Your task to perform on an android device: Search for a new grill on Home Depot Image 0: 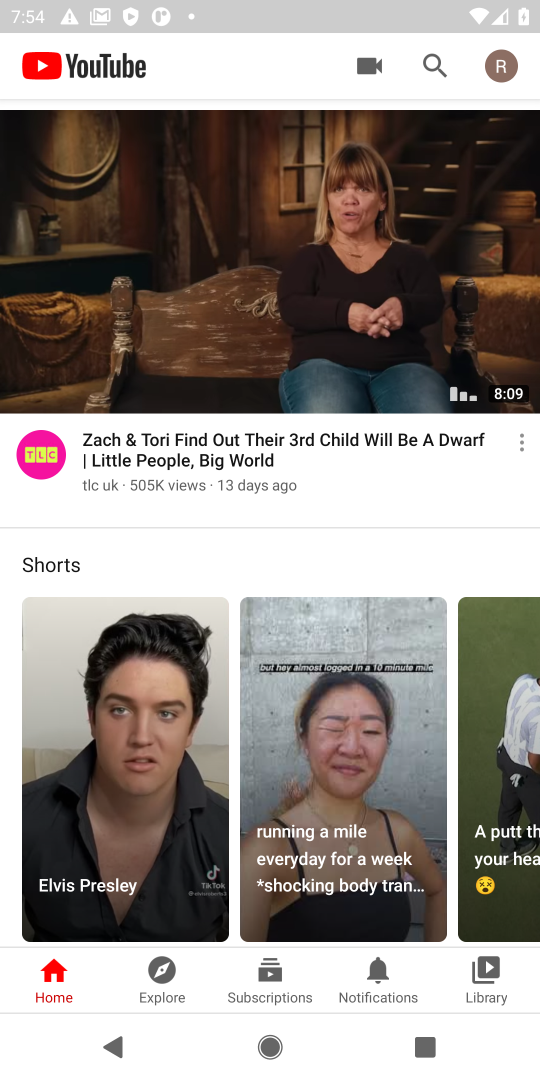
Step 0: press home button
Your task to perform on an android device: Search for a new grill on Home Depot Image 1: 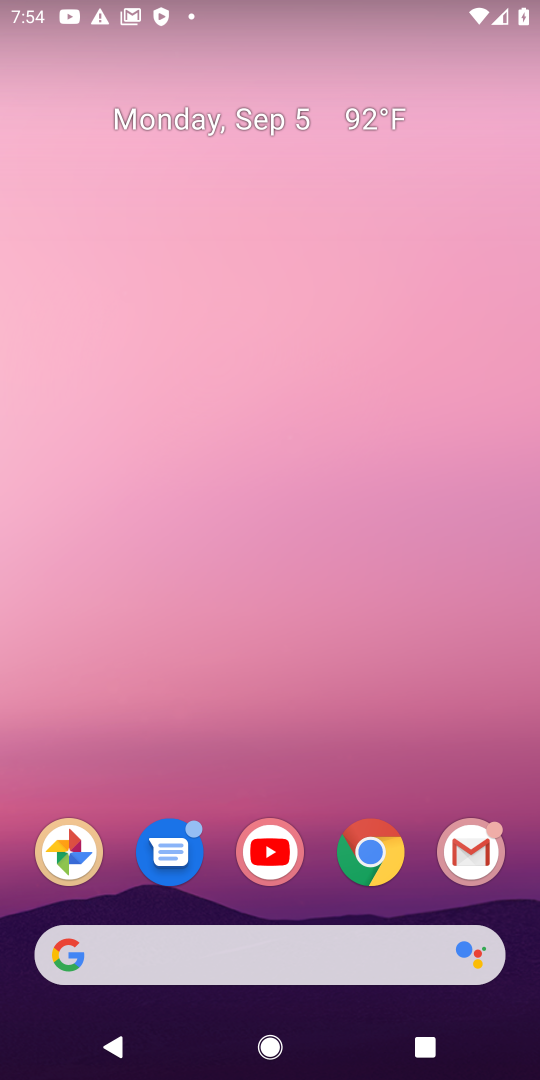
Step 1: click (386, 867)
Your task to perform on an android device: Search for a new grill on Home Depot Image 2: 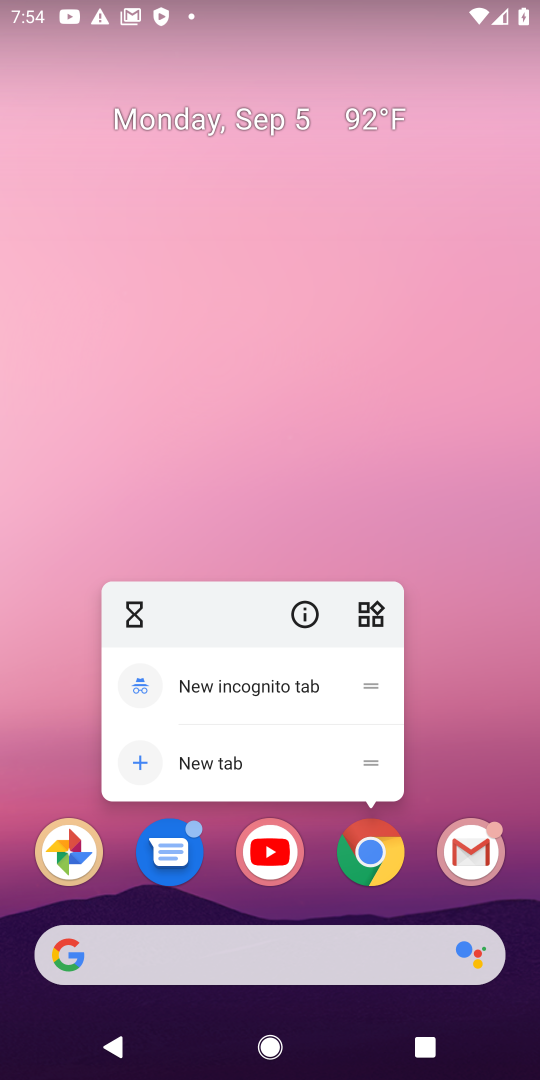
Step 2: click (362, 862)
Your task to perform on an android device: Search for a new grill on Home Depot Image 3: 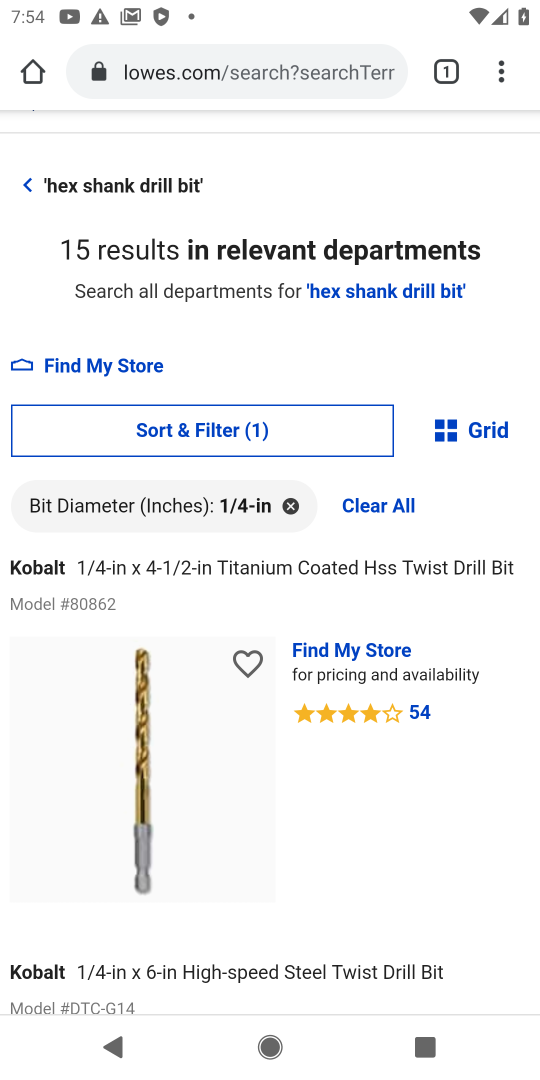
Step 3: click (227, 75)
Your task to perform on an android device: Search for a new grill on Home Depot Image 4: 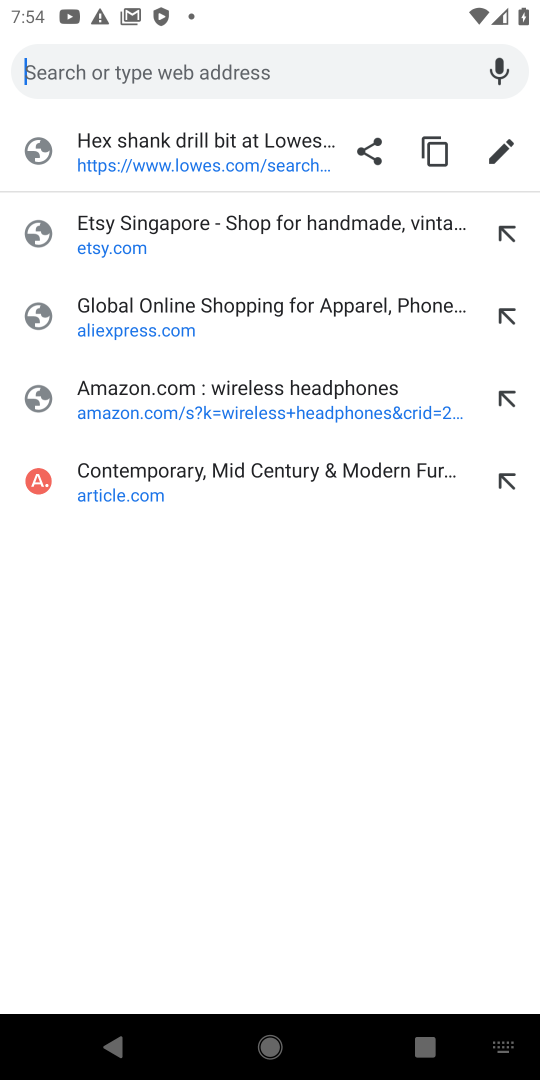
Step 4: type "home depot"
Your task to perform on an android device: Search for a new grill on Home Depot Image 5: 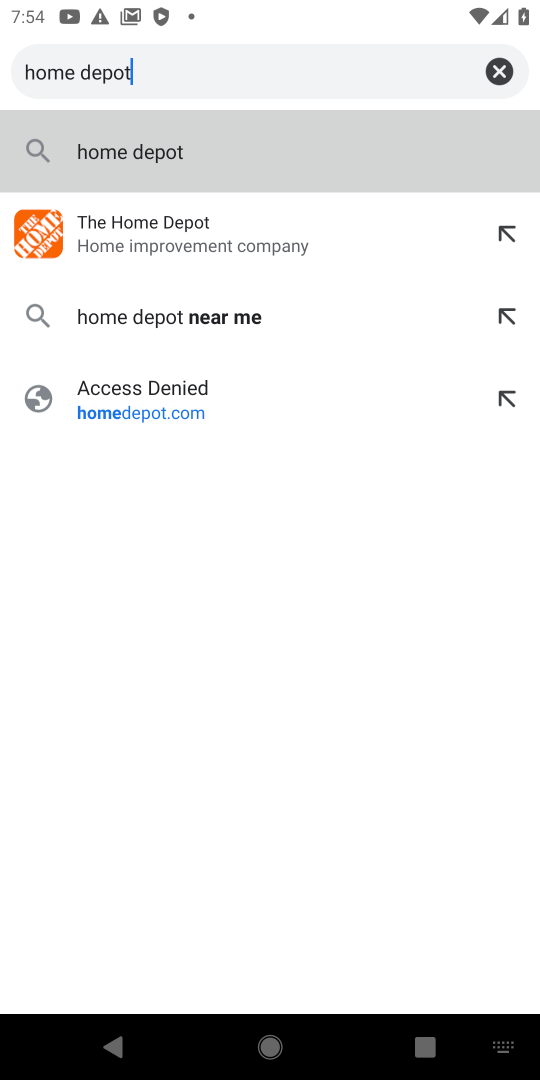
Step 5: press enter
Your task to perform on an android device: Search for a new grill on Home Depot Image 6: 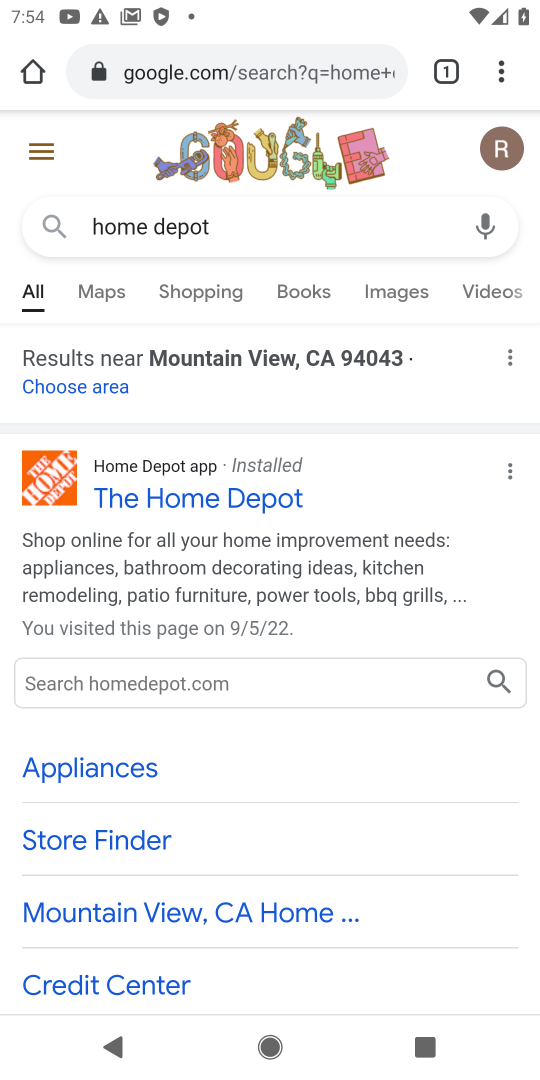
Step 6: click (191, 504)
Your task to perform on an android device: Search for a new grill on Home Depot Image 7: 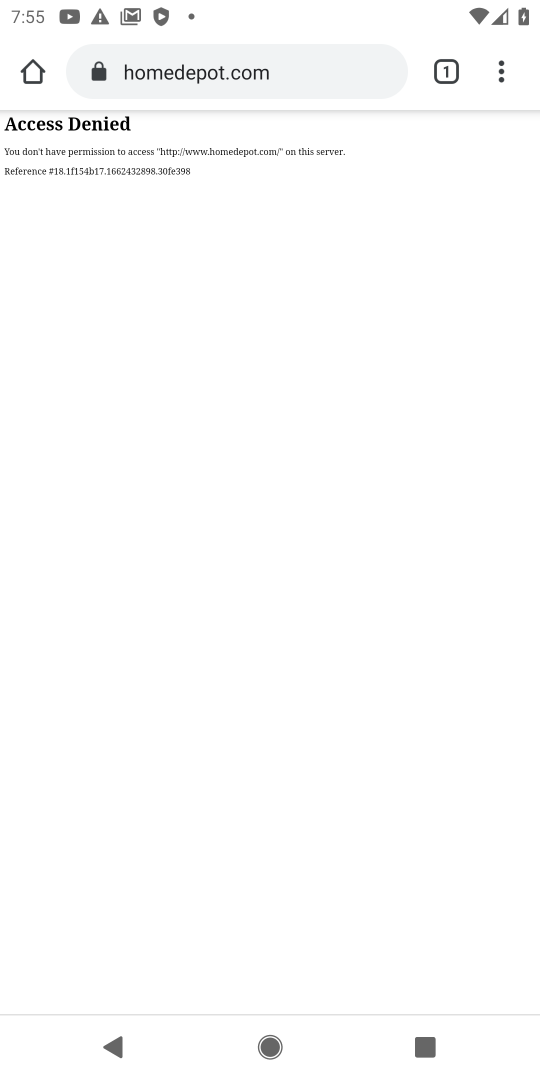
Step 7: press back button
Your task to perform on an android device: Search for a new grill on Home Depot Image 8: 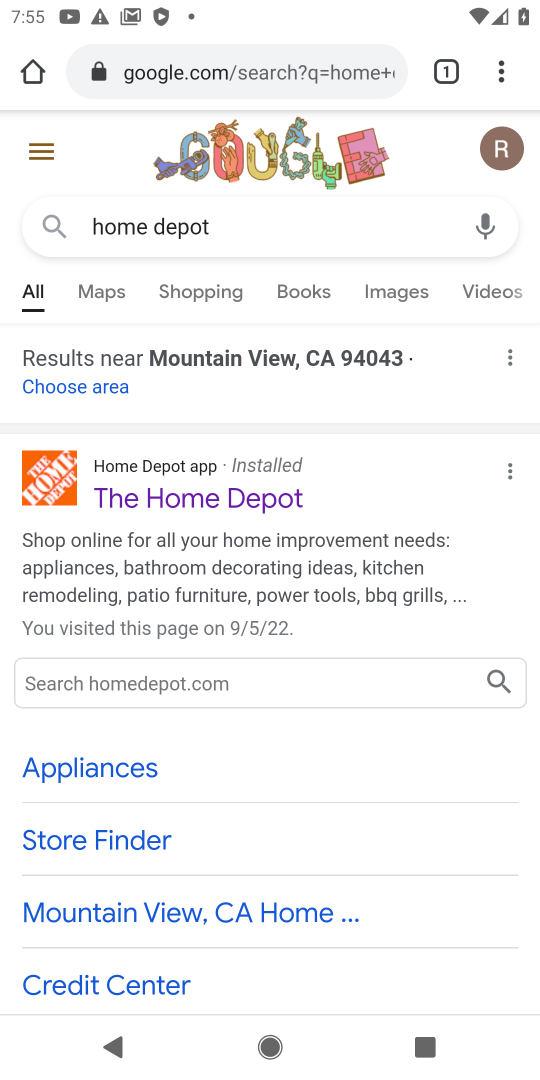
Step 8: click (171, 502)
Your task to perform on an android device: Search for a new grill on Home Depot Image 9: 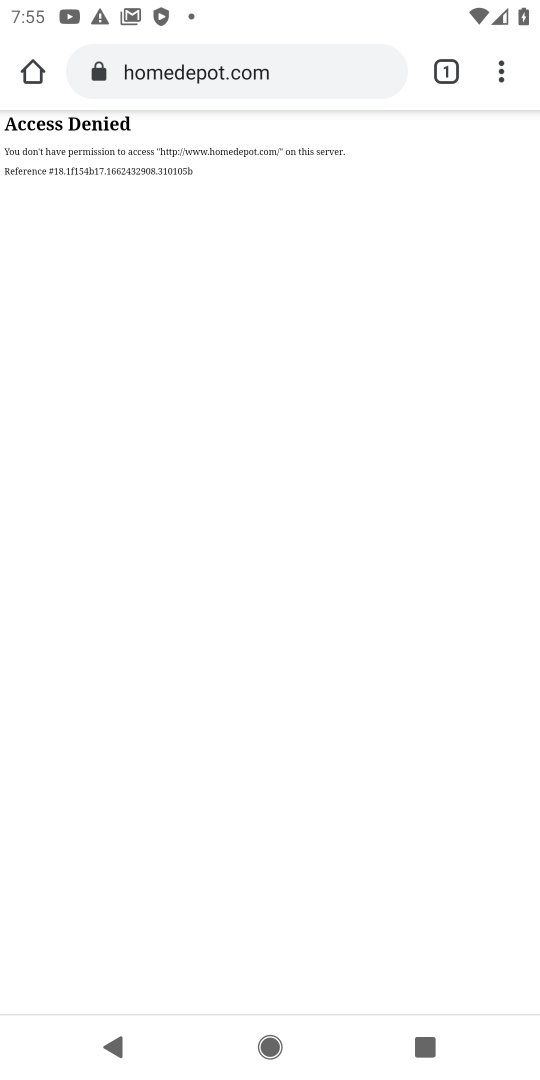
Step 9: press back button
Your task to perform on an android device: Search for a new grill on Home Depot Image 10: 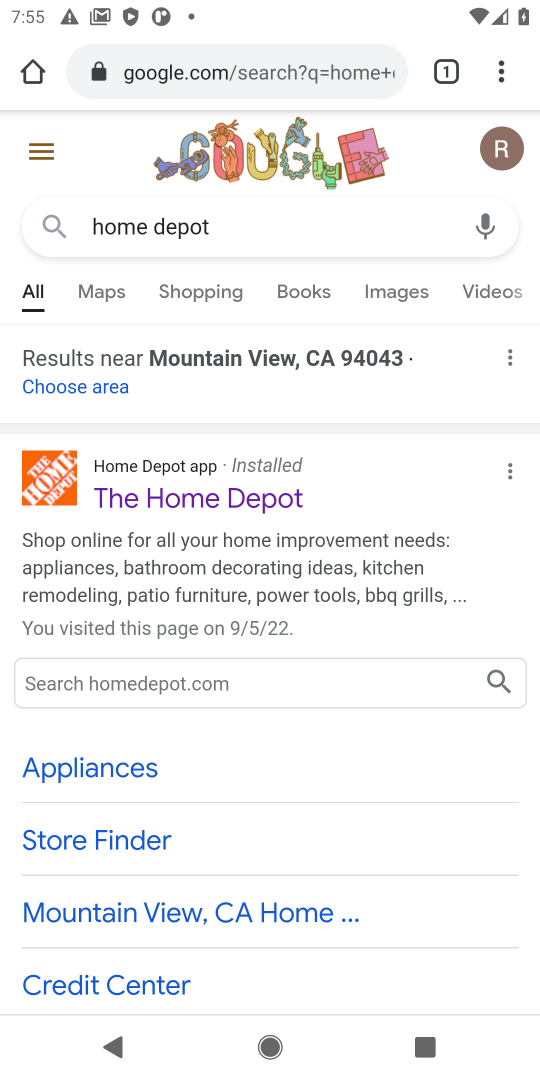
Step 10: click (186, 500)
Your task to perform on an android device: Search for a new grill on Home Depot Image 11: 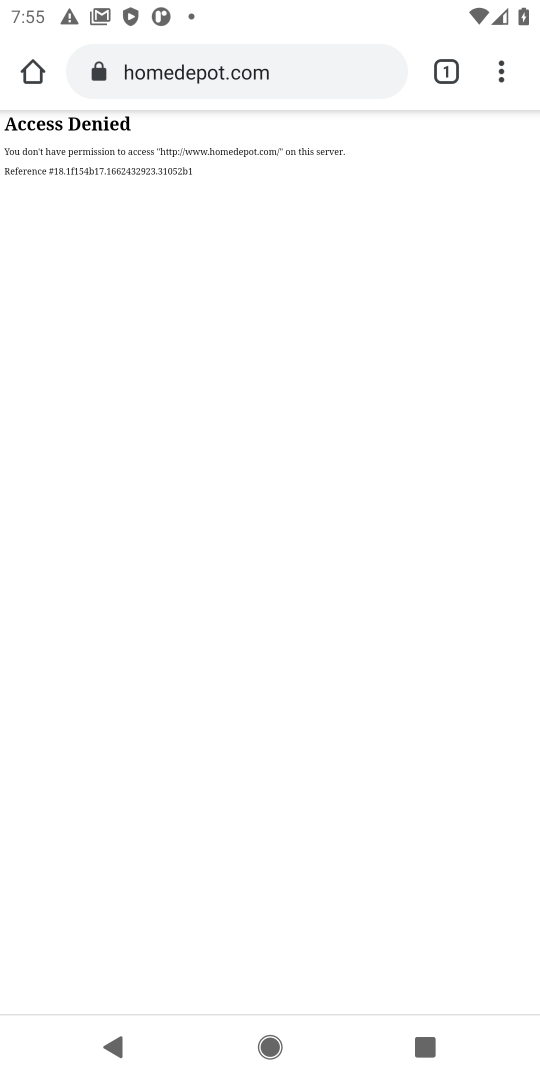
Step 11: task complete